Your task to perform on an android device: Open settings on Google Maps Image 0: 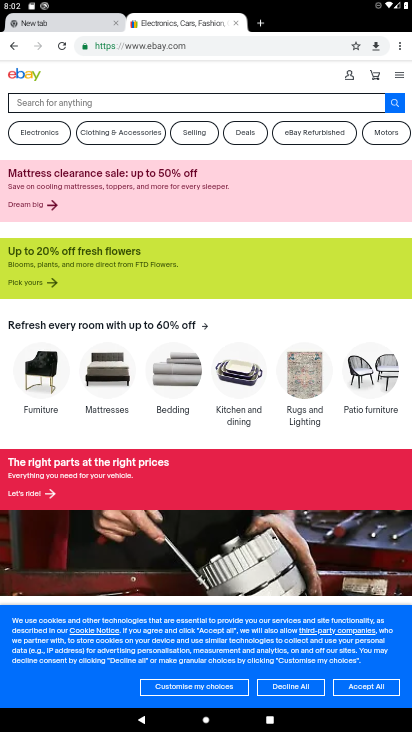
Step 0: press home button
Your task to perform on an android device: Open settings on Google Maps Image 1: 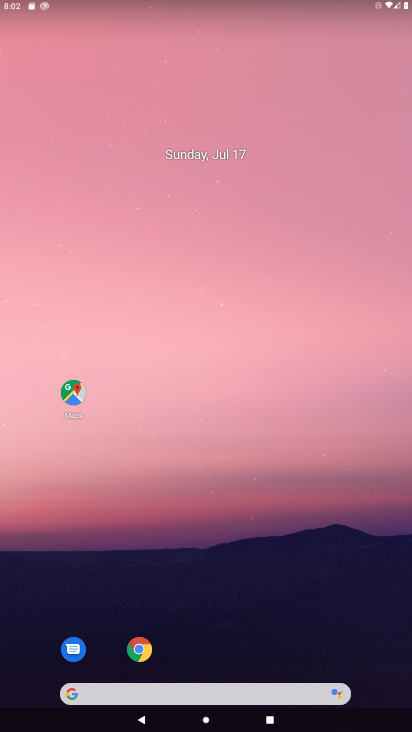
Step 1: drag from (223, 661) to (238, 721)
Your task to perform on an android device: Open settings on Google Maps Image 2: 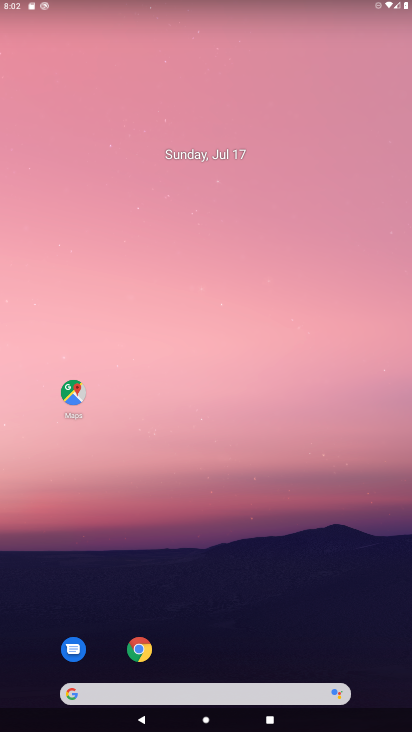
Step 2: drag from (189, 650) to (174, 168)
Your task to perform on an android device: Open settings on Google Maps Image 3: 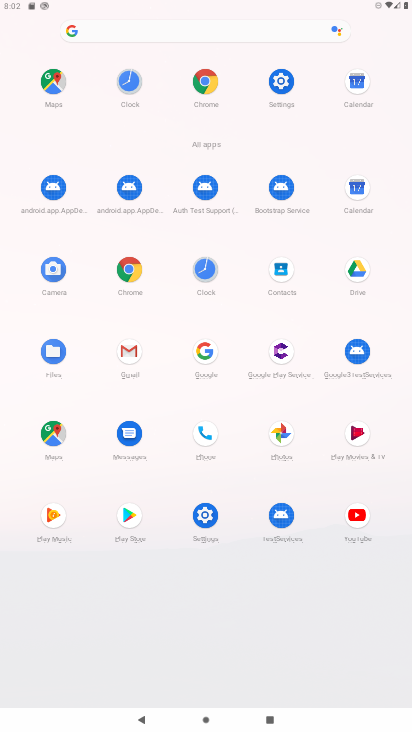
Step 3: click (40, 120)
Your task to perform on an android device: Open settings on Google Maps Image 4: 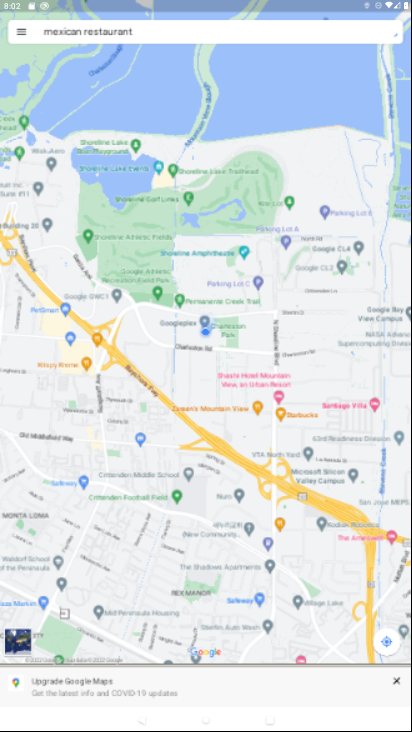
Step 4: click (13, 37)
Your task to perform on an android device: Open settings on Google Maps Image 5: 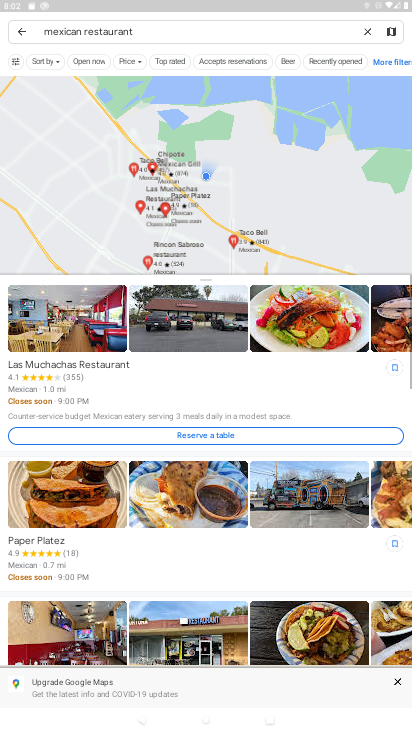
Step 5: click (20, 36)
Your task to perform on an android device: Open settings on Google Maps Image 6: 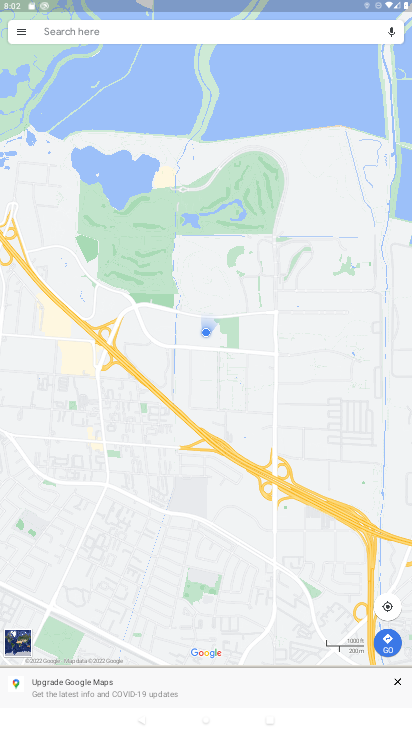
Step 6: click (18, 33)
Your task to perform on an android device: Open settings on Google Maps Image 7: 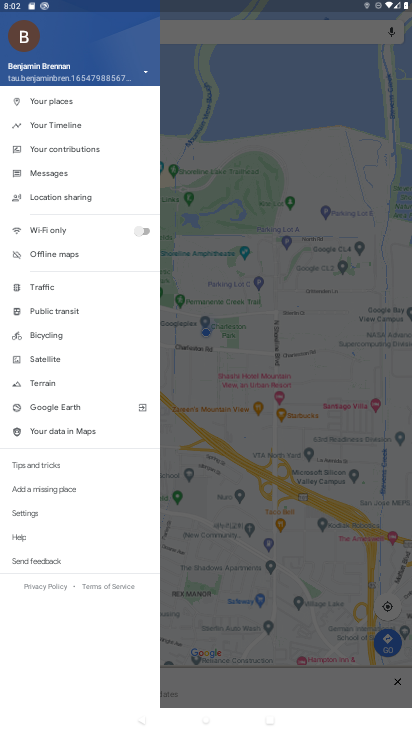
Step 7: click (27, 516)
Your task to perform on an android device: Open settings on Google Maps Image 8: 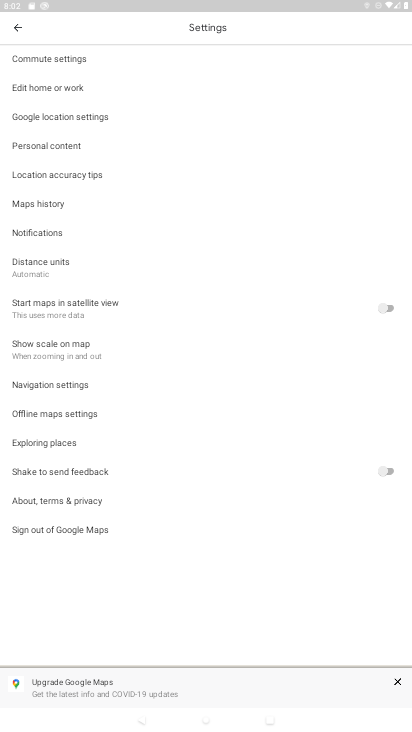
Step 8: task complete